Your task to perform on an android device: What is the recent news? Image 0: 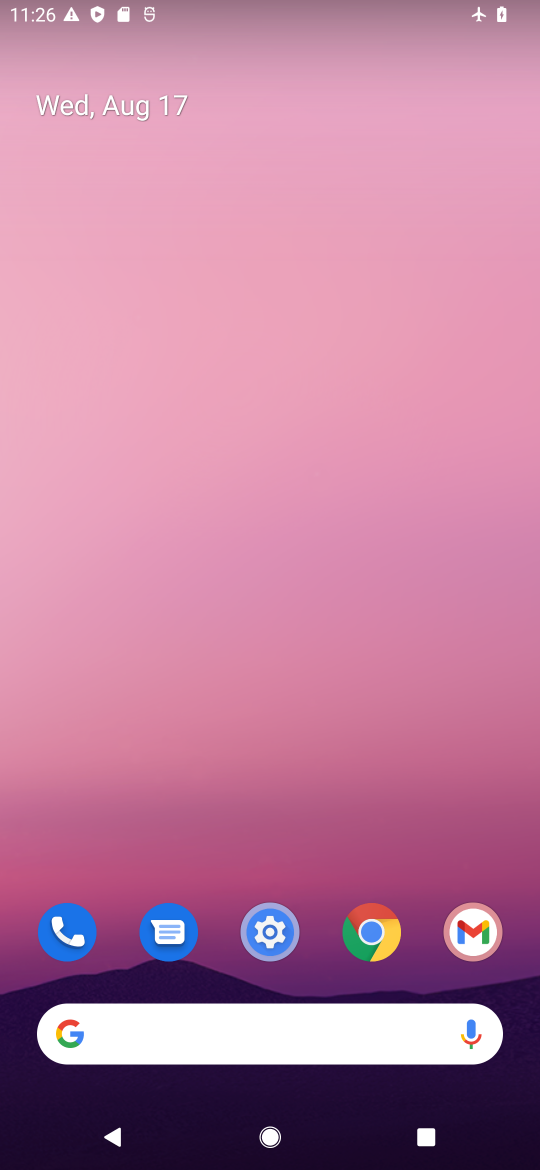
Step 0: drag from (320, 856) to (303, 174)
Your task to perform on an android device: What is the recent news? Image 1: 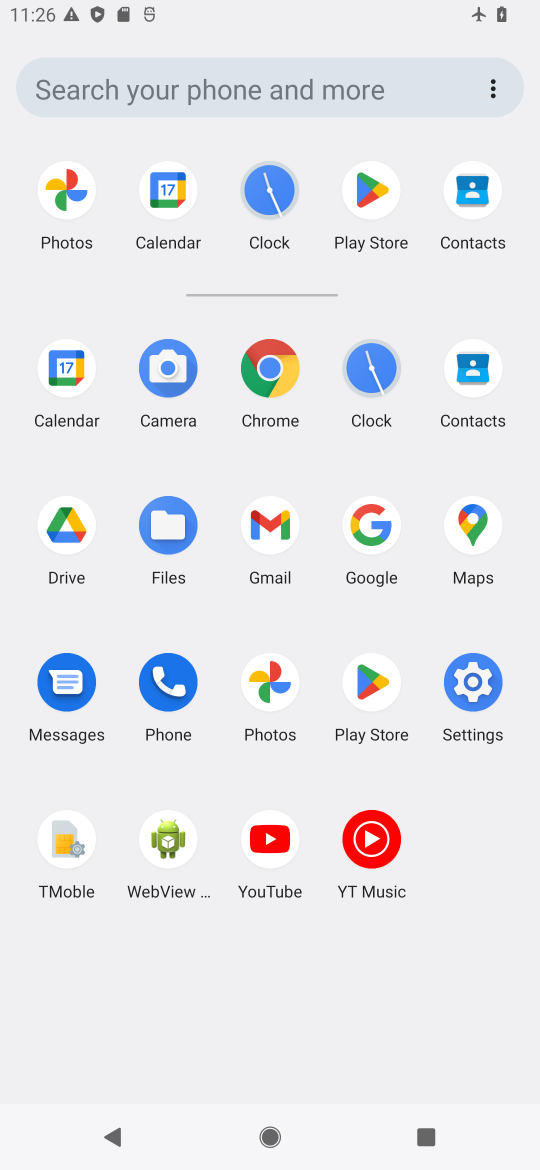
Step 1: click (366, 541)
Your task to perform on an android device: What is the recent news? Image 2: 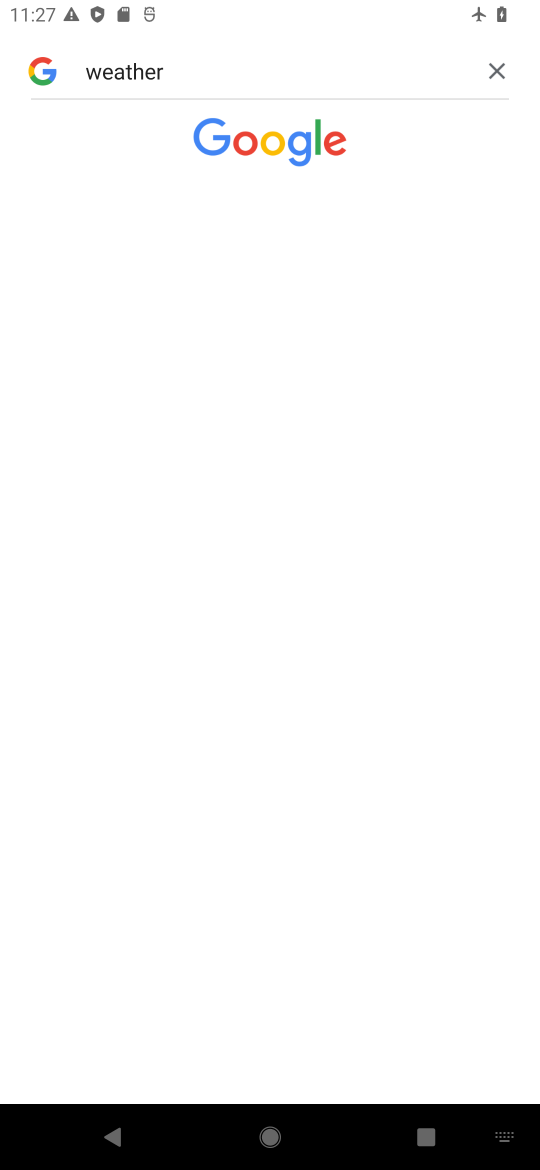
Step 2: click (486, 64)
Your task to perform on an android device: What is the recent news? Image 3: 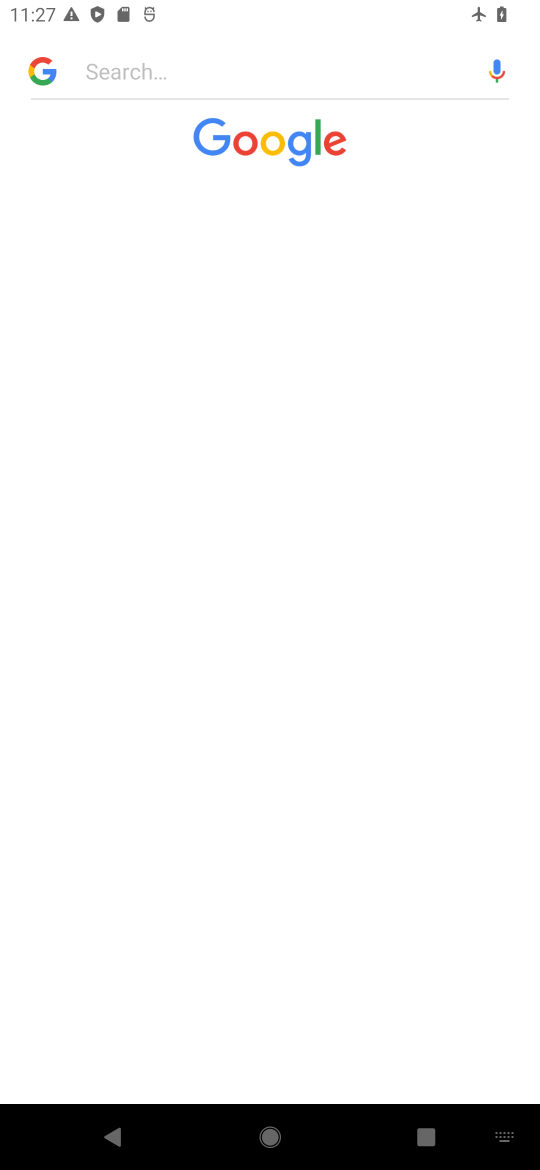
Step 3: type "recent news"
Your task to perform on an android device: What is the recent news? Image 4: 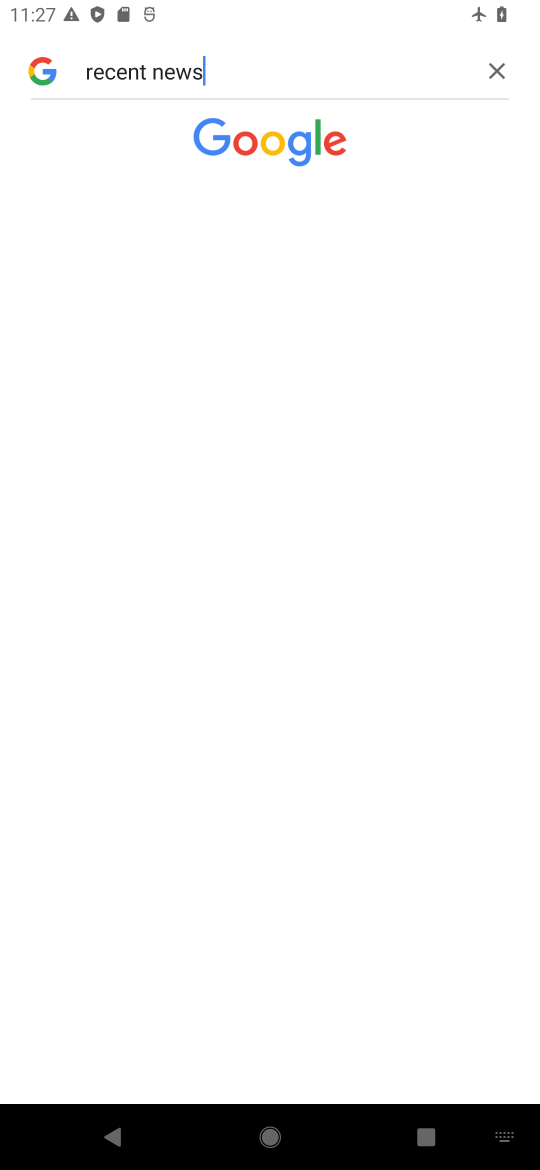
Step 4: type ""
Your task to perform on an android device: What is the recent news? Image 5: 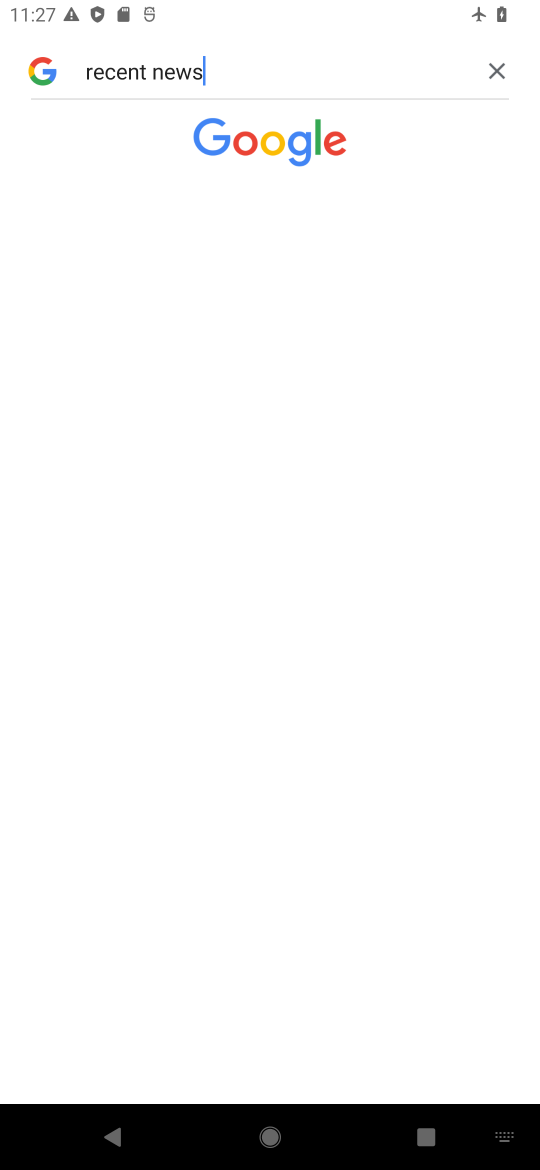
Step 5: task complete